Your task to perform on an android device: open app "WhatsApp Messenger" (install if not already installed) and enter user name: "cartons@outlook.com" and password: "approximated" Image 0: 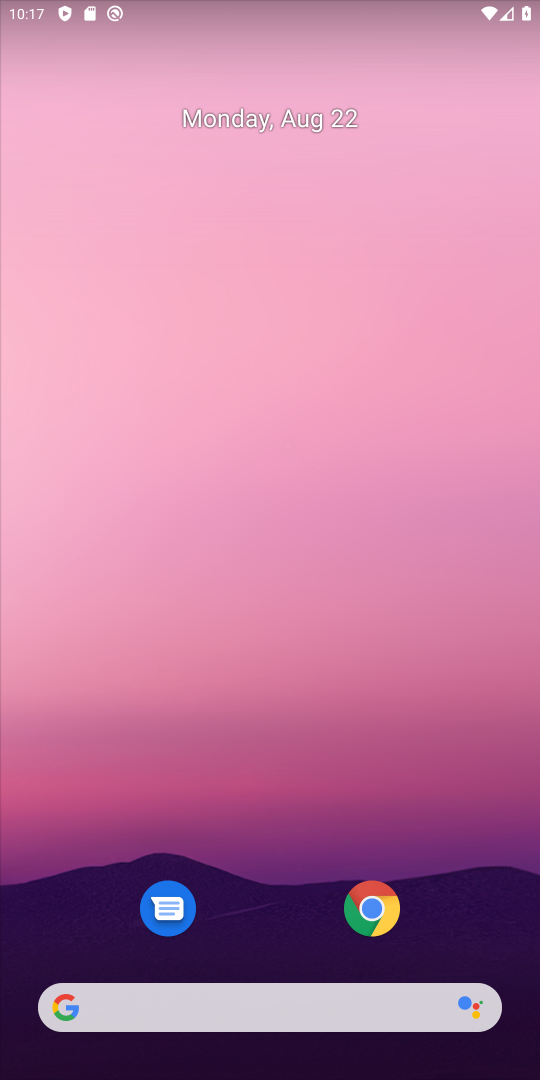
Step 0: click (285, 239)
Your task to perform on an android device: open app "WhatsApp Messenger" (install if not already installed) and enter user name: "cartons@outlook.com" and password: "approximated" Image 1: 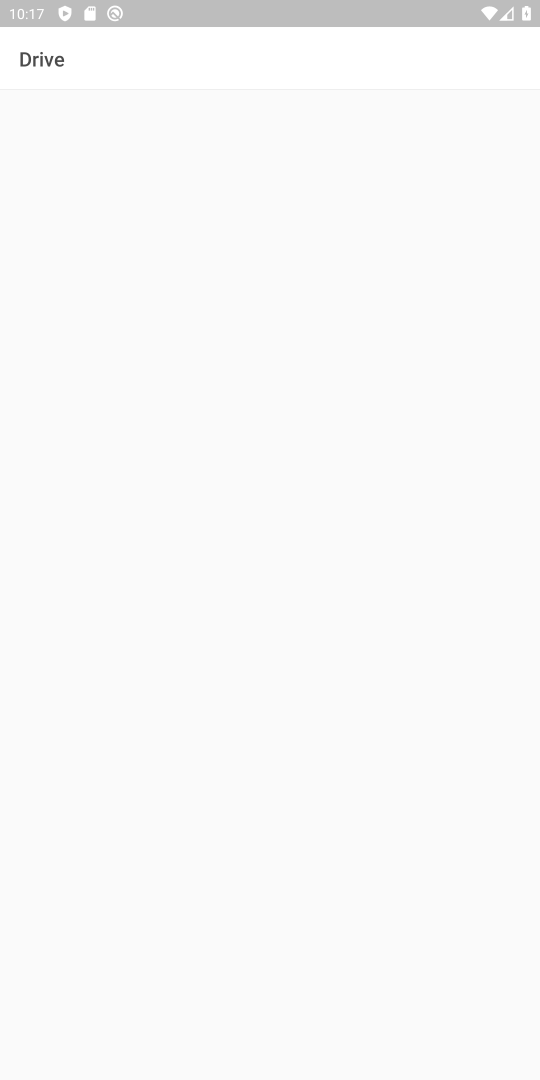
Step 1: press home button
Your task to perform on an android device: open app "WhatsApp Messenger" (install if not already installed) and enter user name: "cartons@outlook.com" and password: "approximated" Image 2: 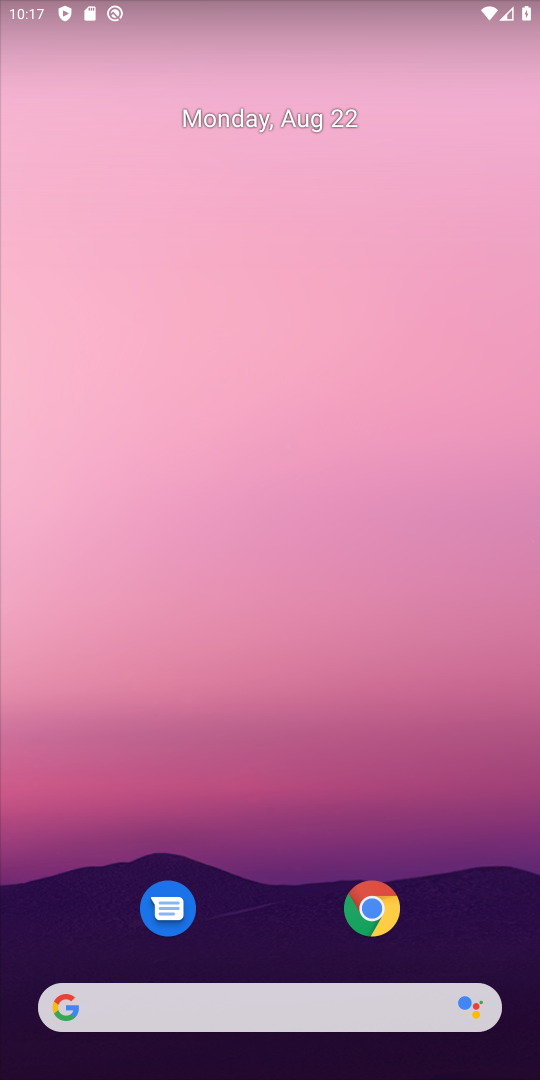
Step 2: drag from (277, 942) to (477, 0)
Your task to perform on an android device: open app "WhatsApp Messenger" (install if not already installed) and enter user name: "cartons@outlook.com" and password: "approximated" Image 3: 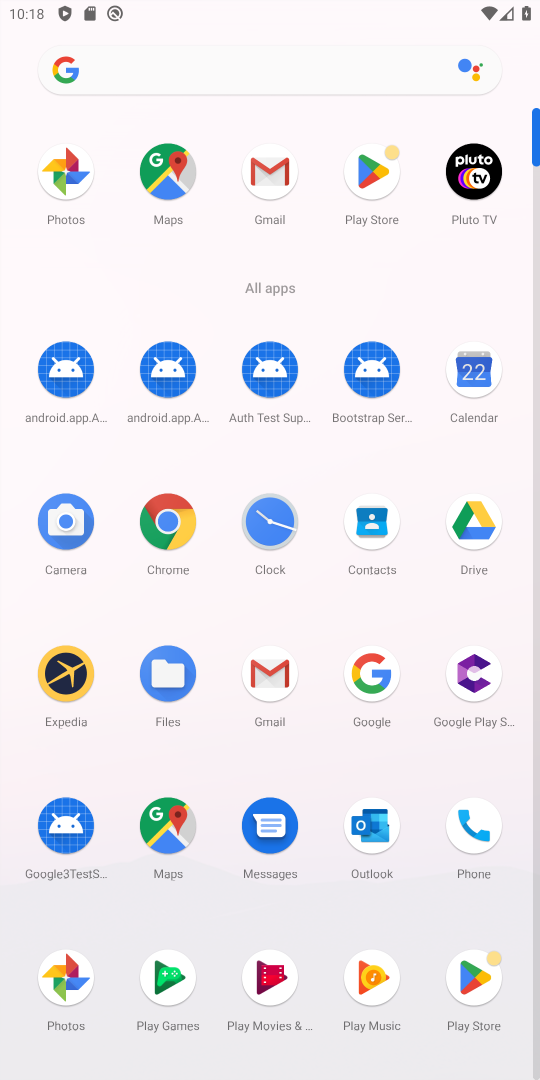
Step 3: click (371, 162)
Your task to perform on an android device: open app "WhatsApp Messenger" (install if not already installed) and enter user name: "cartons@outlook.com" and password: "approximated" Image 4: 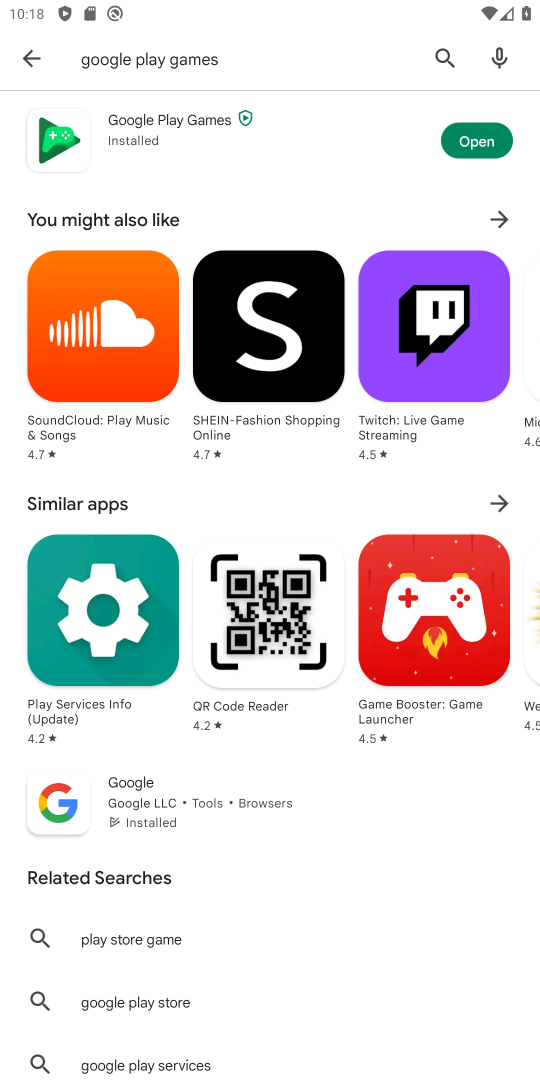
Step 4: click (438, 94)
Your task to perform on an android device: open app "WhatsApp Messenger" (install if not already installed) and enter user name: "cartons@outlook.com" and password: "approximated" Image 5: 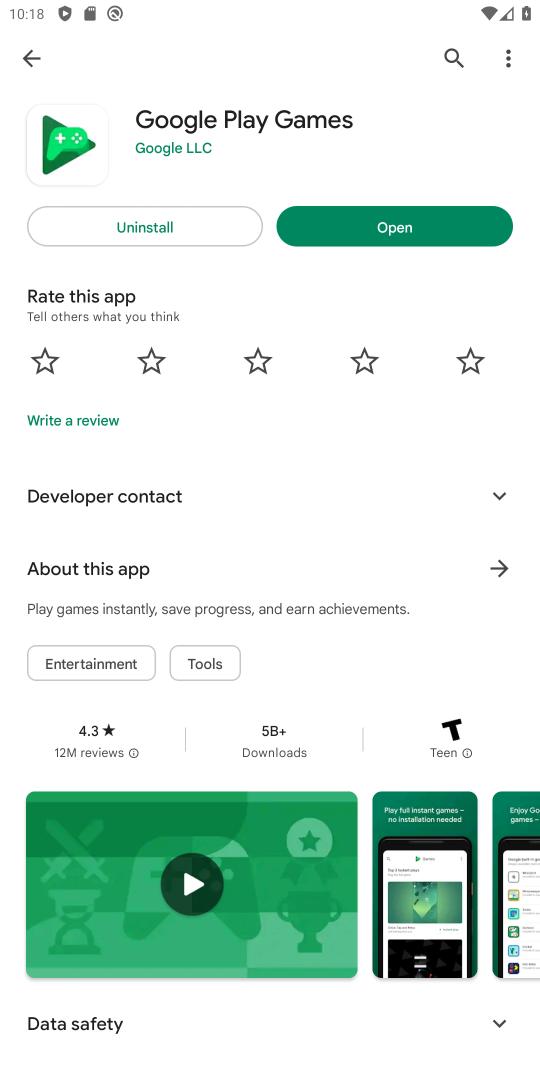
Step 5: click (465, 65)
Your task to perform on an android device: open app "WhatsApp Messenger" (install if not already installed) and enter user name: "cartons@outlook.com" and password: "approximated" Image 6: 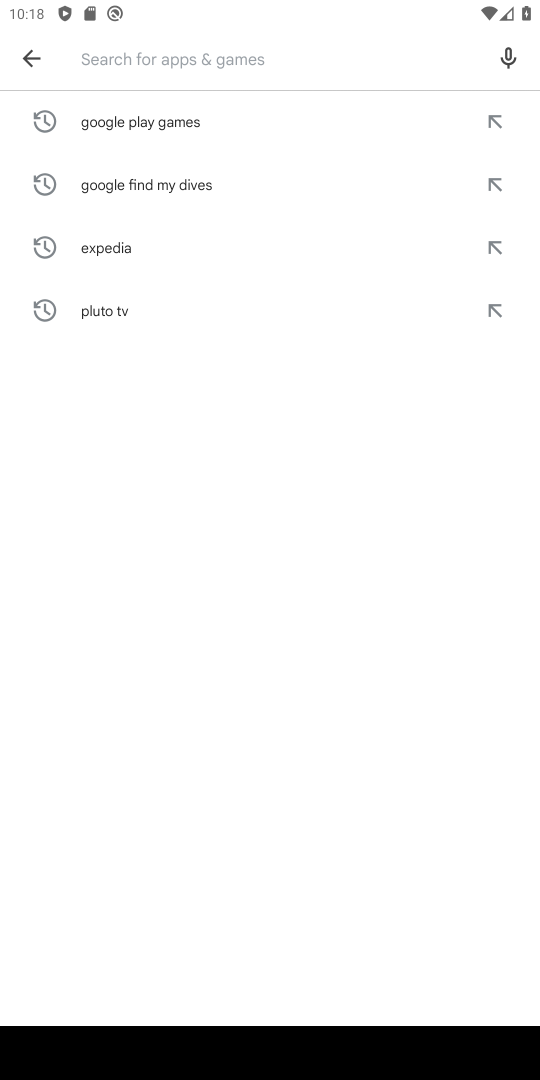
Step 6: type "whatsaap messanger"
Your task to perform on an android device: open app "WhatsApp Messenger" (install if not already installed) and enter user name: "cartons@outlook.com" and password: "approximated" Image 7: 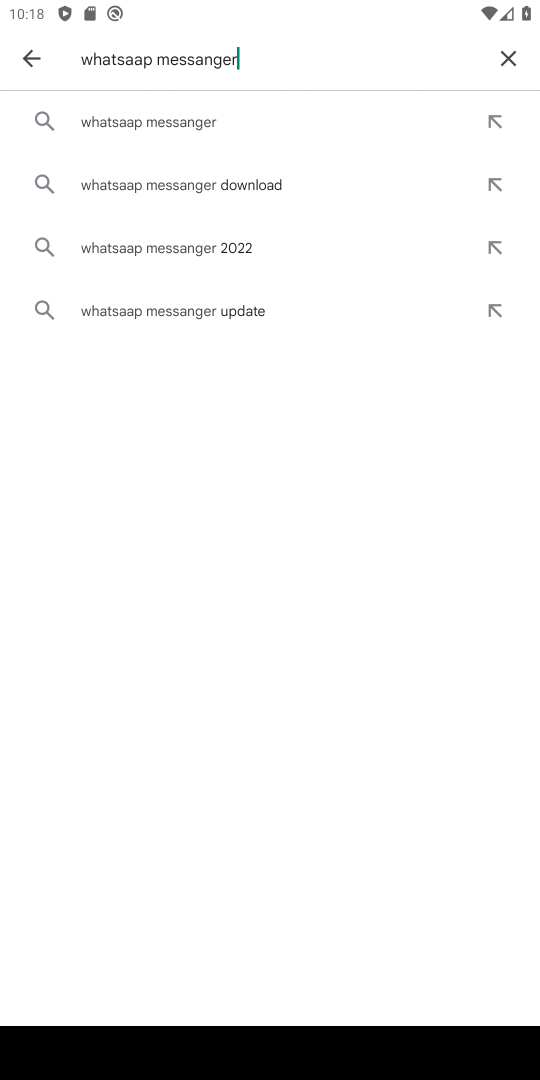
Step 7: click (245, 118)
Your task to perform on an android device: open app "WhatsApp Messenger" (install if not already installed) and enter user name: "cartons@outlook.com" and password: "approximated" Image 8: 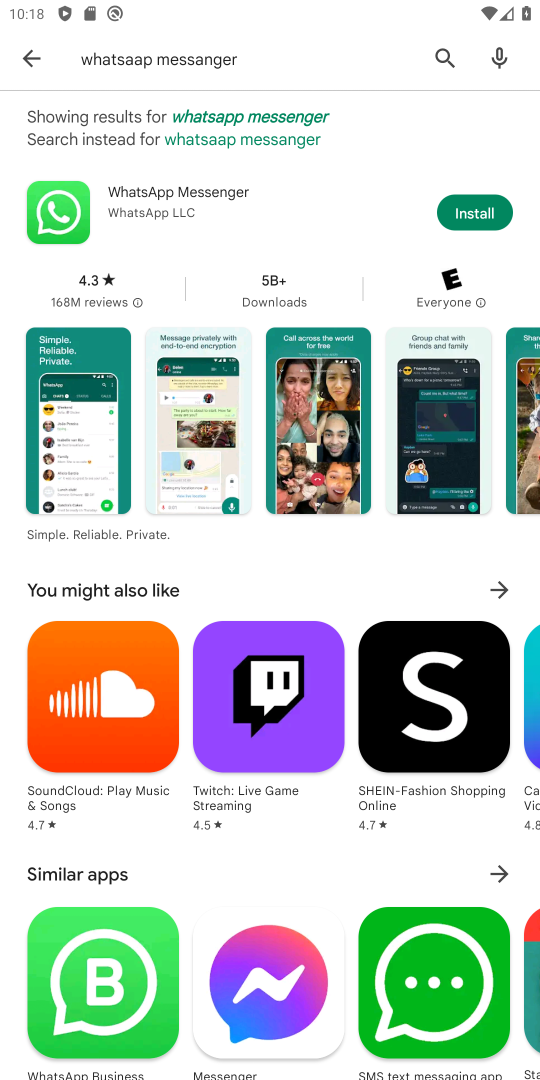
Step 8: click (471, 220)
Your task to perform on an android device: open app "WhatsApp Messenger" (install if not already installed) and enter user name: "cartons@outlook.com" and password: "approximated" Image 9: 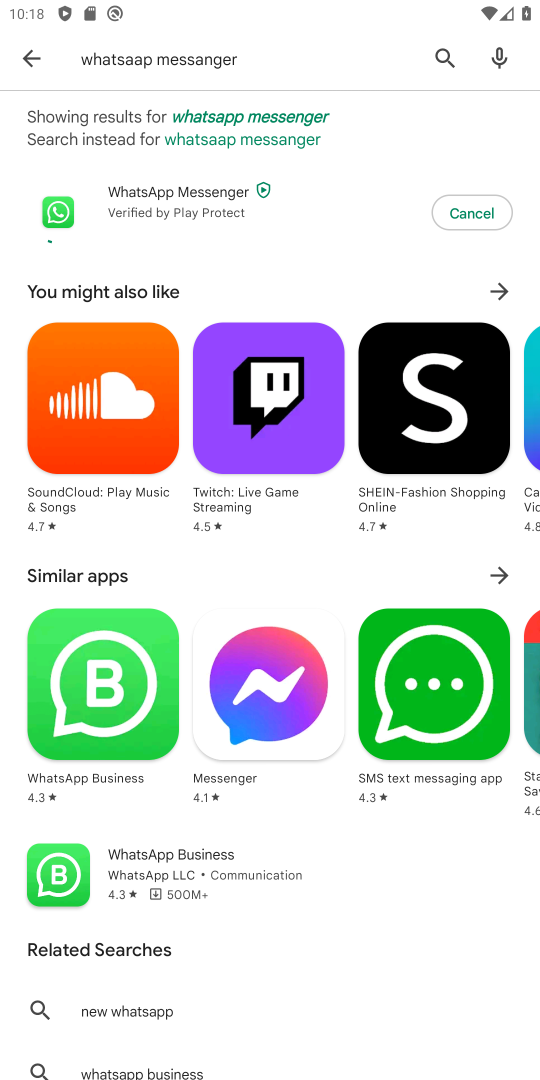
Step 9: task complete